Your task to perform on an android device: Search for beats solo 3 on bestbuy.com, select the first entry, and add it to the cart. Image 0: 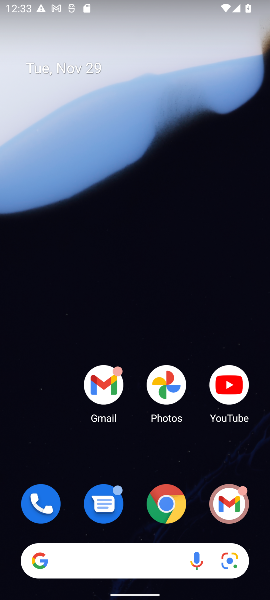
Step 0: click (163, 506)
Your task to perform on an android device: Search for beats solo 3 on bestbuy.com, select the first entry, and add it to the cart. Image 1: 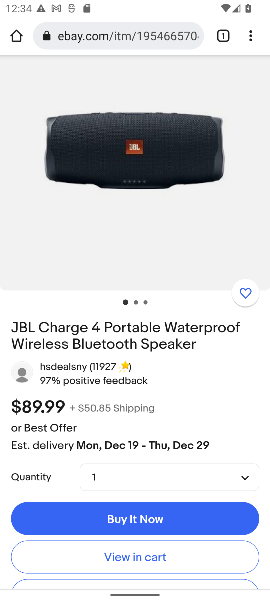
Step 1: click (92, 32)
Your task to perform on an android device: Search for beats solo 3 on bestbuy.com, select the first entry, and add it to the cart. Image 2: 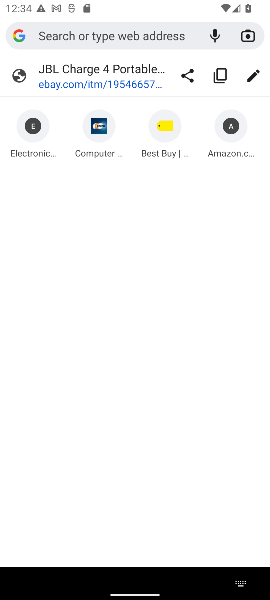
Step 2: click (160, 147)
Your task to perform on an android device: Search for beats solo 3 on bestbuy.com, select the first entry, and add it to the cart. Image 3: 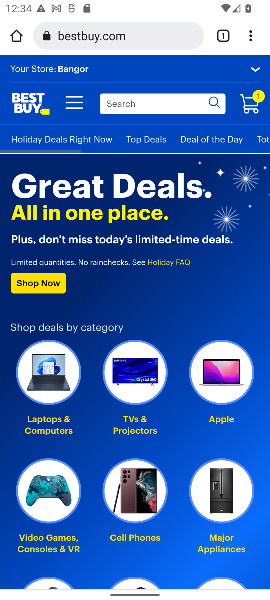
Step 3: click (126, 105)
Your task to perform on an android device: Search for beats solo 3 on bestbuy.com, select the first entry, and add it to the cart. Image 4: 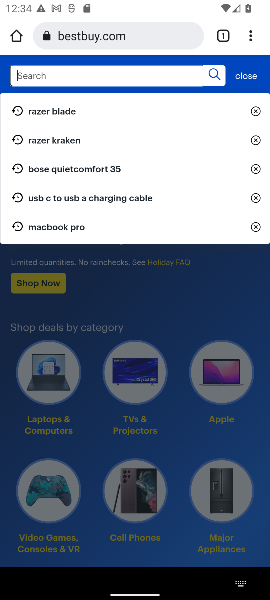
Step 4: type "beats solo 3 "
Your task to perform on an android device: Search for beats solo 3 on bestbuy.com, select the first entry, and add it to the cart. Image 5: 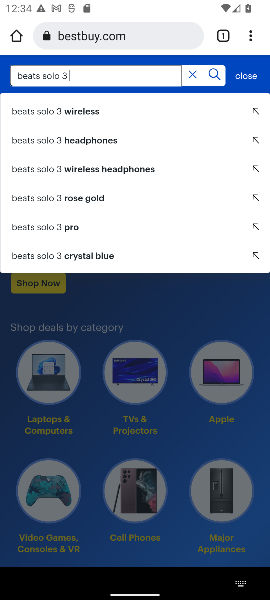
Step 5: click (53, 114)
Your task to perform on an android device: Search for beats solo 3 on bestbuy.com, select the first entry, and add it to the cart. Image 6: 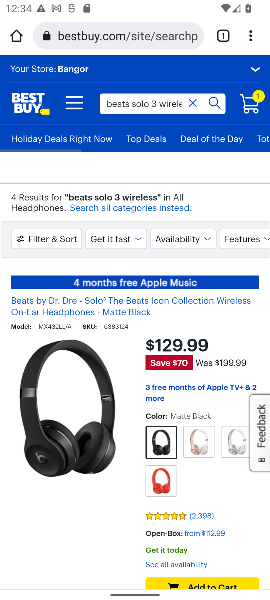
Step 6: click (105, 452)
Your task to perform on an android device: Search for beats solo 3 on bestbuy.com, select the first entry, and add it to the cart. Image 7: 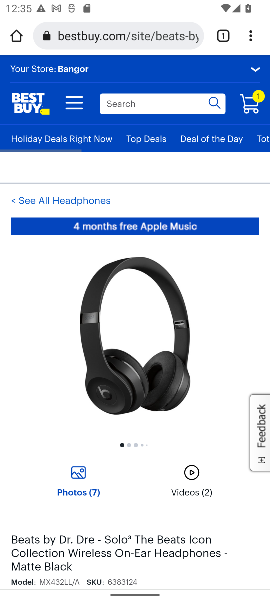
Step 7: drag from (130, 481) to (125, 249)
Your task to perform on an android device: Search for beats solo 3 on bestbuy.com, select the first entry, and add it to the cart. Image 8: 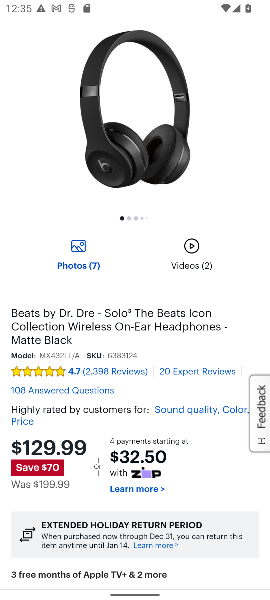
Step 8: drag from (158, 473) to (158, 289)
Your task to perform on an android device: Search for beats solo 3 on bestbuy.com, select the first entry, and add it to the cart. Image 9: 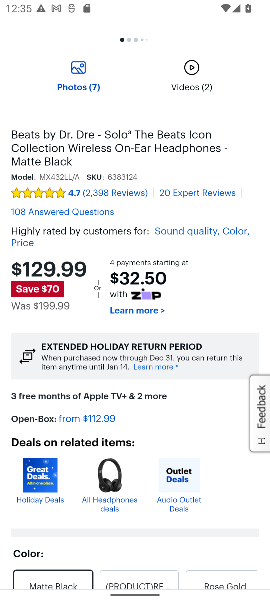
Step 9: drag from (160, 422) to (192, 221)
Your task to perform on an android device: Search for beats solo 3 on bestbuy.com, select the first entry, and add it to the cart. Image 10: 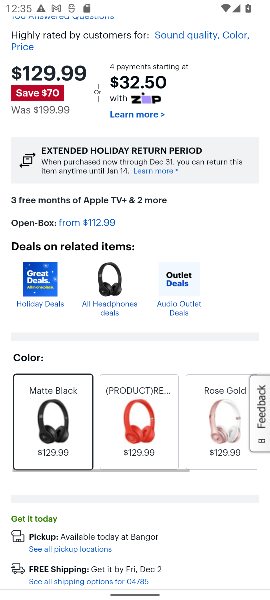
Step 10: drag from (171, 510) to (158, 277)
Your task to perform on an android device: Search for beats solo 3 on bestbuy.com, select the first entry, and add it to the cart. Image 11: 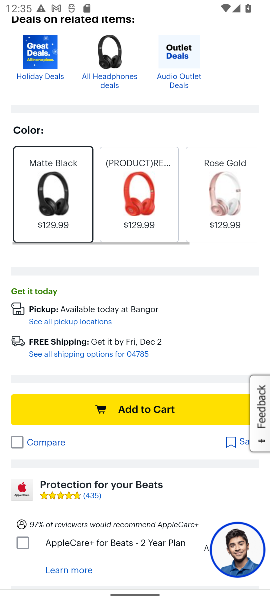
Step 11: click (124, 407)
Your task to perform on an android device: Search for beats solo 3 on bestbuy.com, select the first entry, and add it to the cart. Image 12: 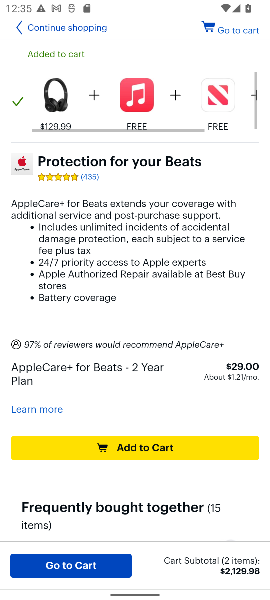
Step 12: task complete